Your task to perform on an android device: Open battery settings Image 0: 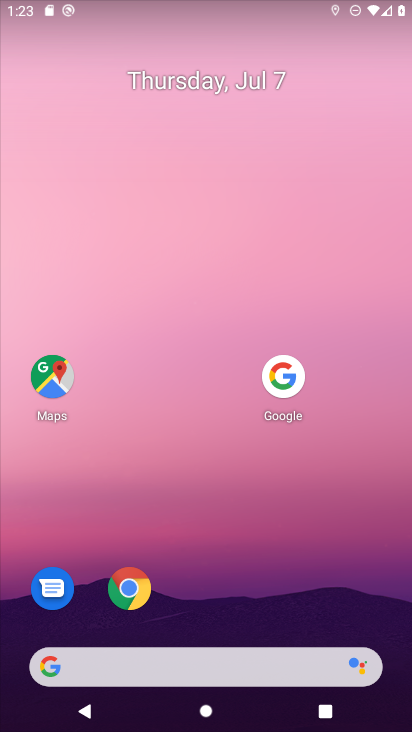
Step 0: drag from (203, 662) to (406, 138)
Your task to perform on an android device: Open battery settings Image 1: 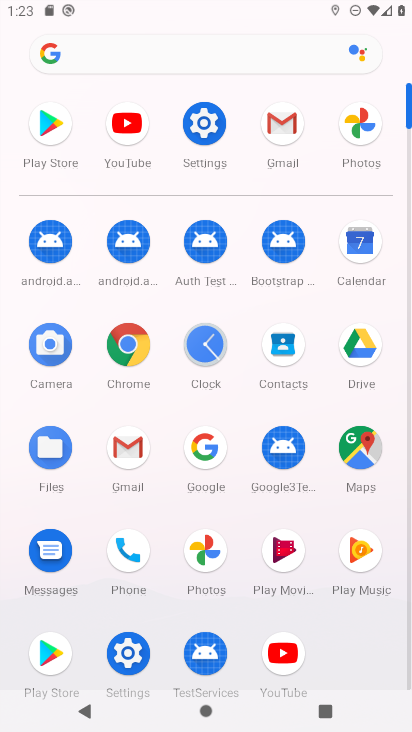
Step 1: click (206, 127)
Your task to perform on an android device: Open battery settings Image 2: 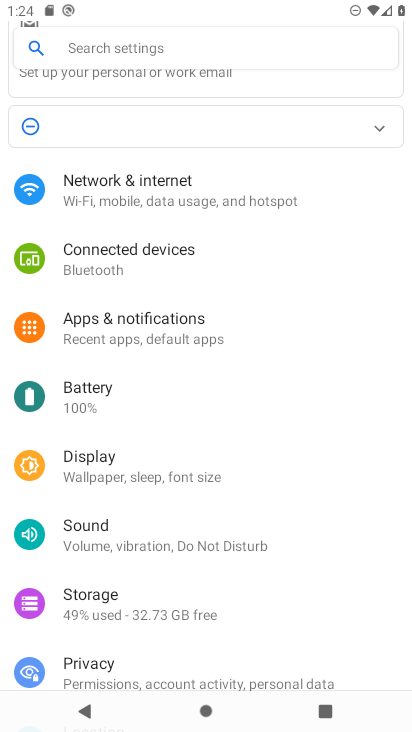
Step 2: click (81, 389)
Your task to perform on an android device: Open battery settings Image 3: 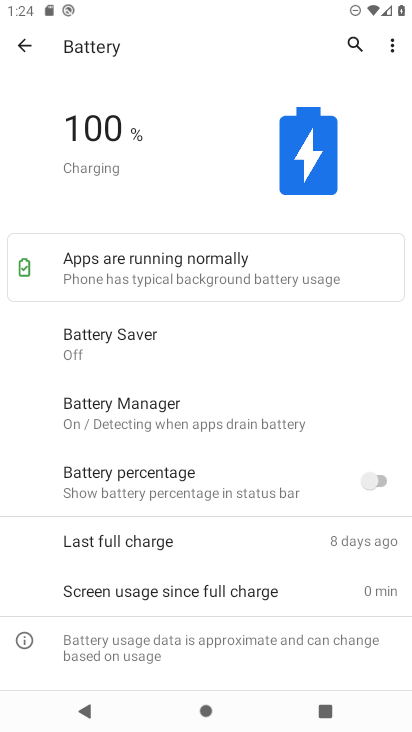
Step 3: task complete